Your task to perform on an android device: turn on translation in the chrome app Image 0: 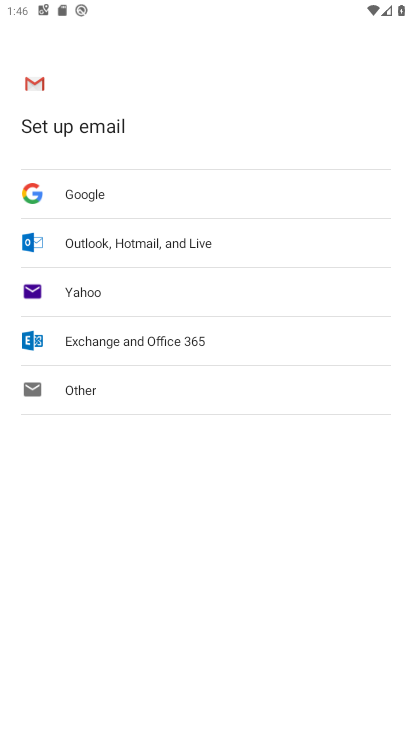
Step 0: press home button
Your task to perform on an android device: turn on translation in the chrome app Image 1: 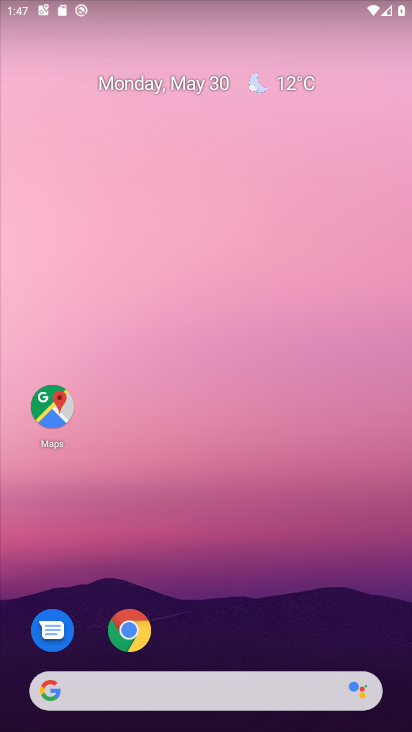
Step 1: click (137, 640)
Your task to perform on an android device: turn on translation in the chrome app Image 2: 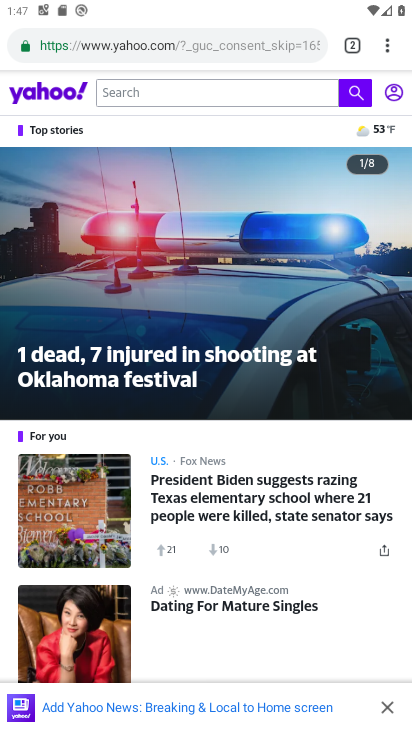
Step 2: drag from (390, 37) to (254, 546)
Your task to perform on an android device: turn on translation in the chrome app Image 3: 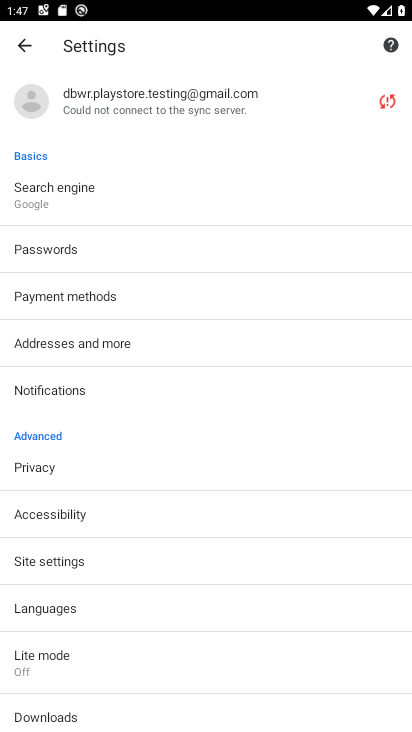
Step 3: click (129, 602)
Your task to perform on an android device: turn on translation in the chrome app Image 4: 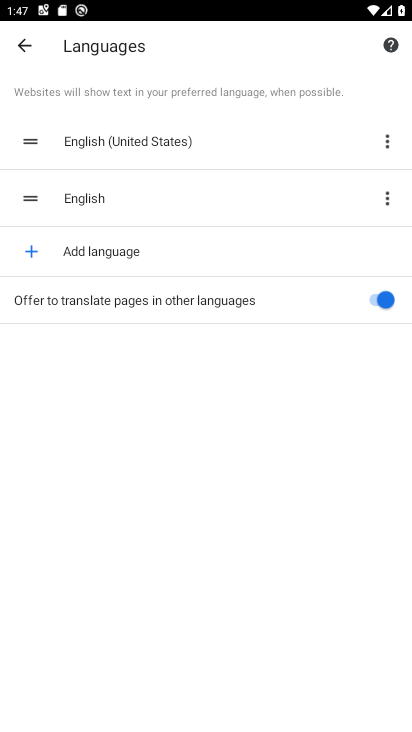
Step 4: task complete